Your task to perform on an android device: install app "Facebook Messenger" Image 0: 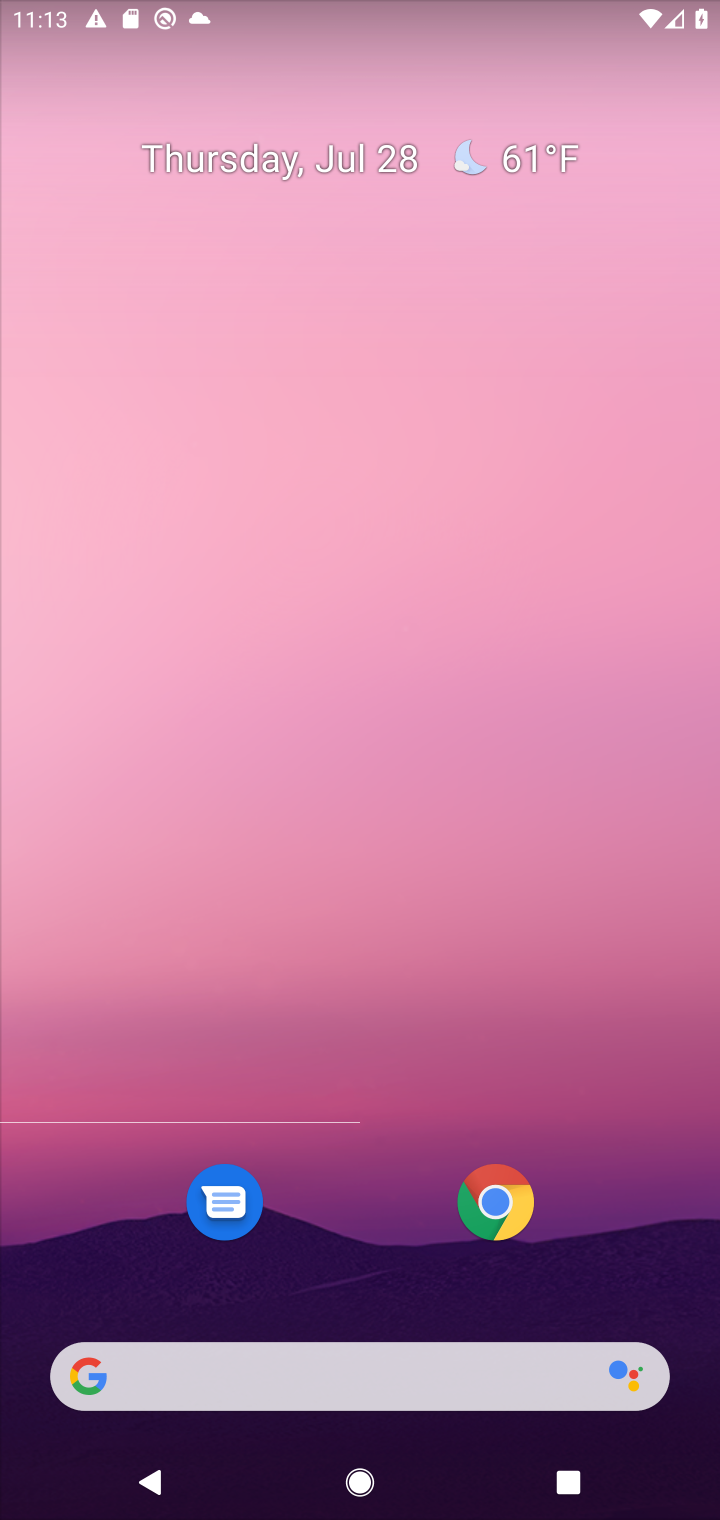
Step 0: click (567, 1001)
Your task to perform on an android device: install app "Facebook Messenger" Image 1: 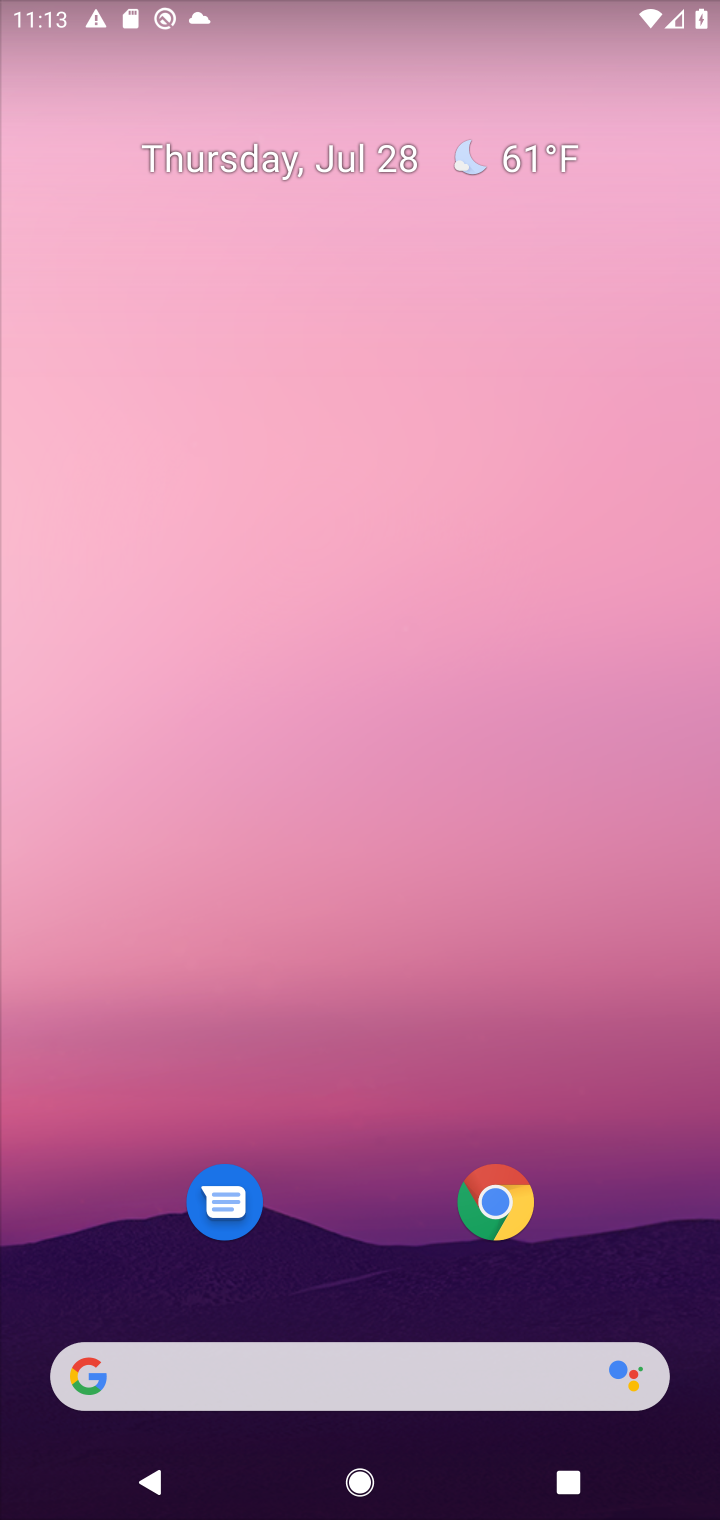
Step 1: click (286, 1389)
Your task to perform on an android device: install app "Facebook Messenger" Image 2: 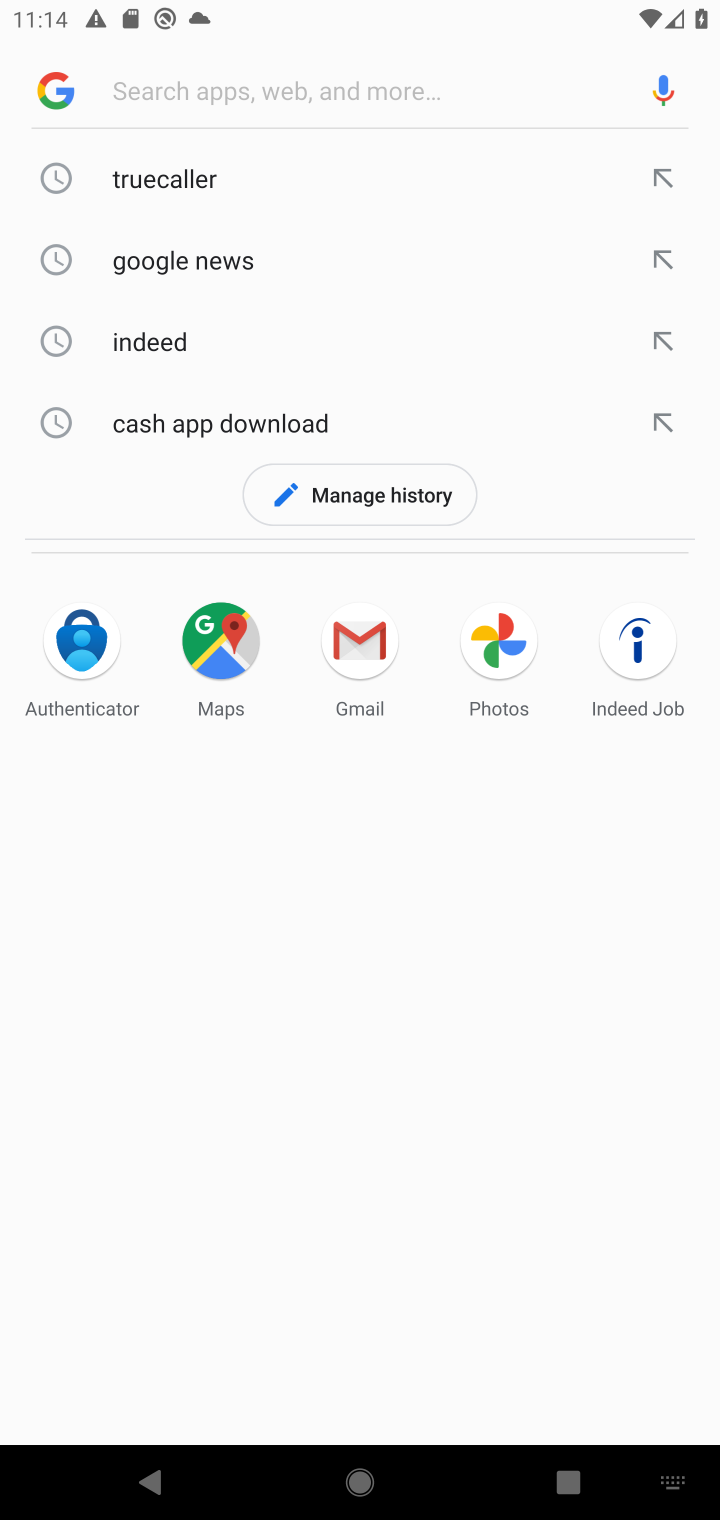
Step 2: type "facebook messanger"
Your task to perform on an android device: install app "Facebook Messenger" Image 3: 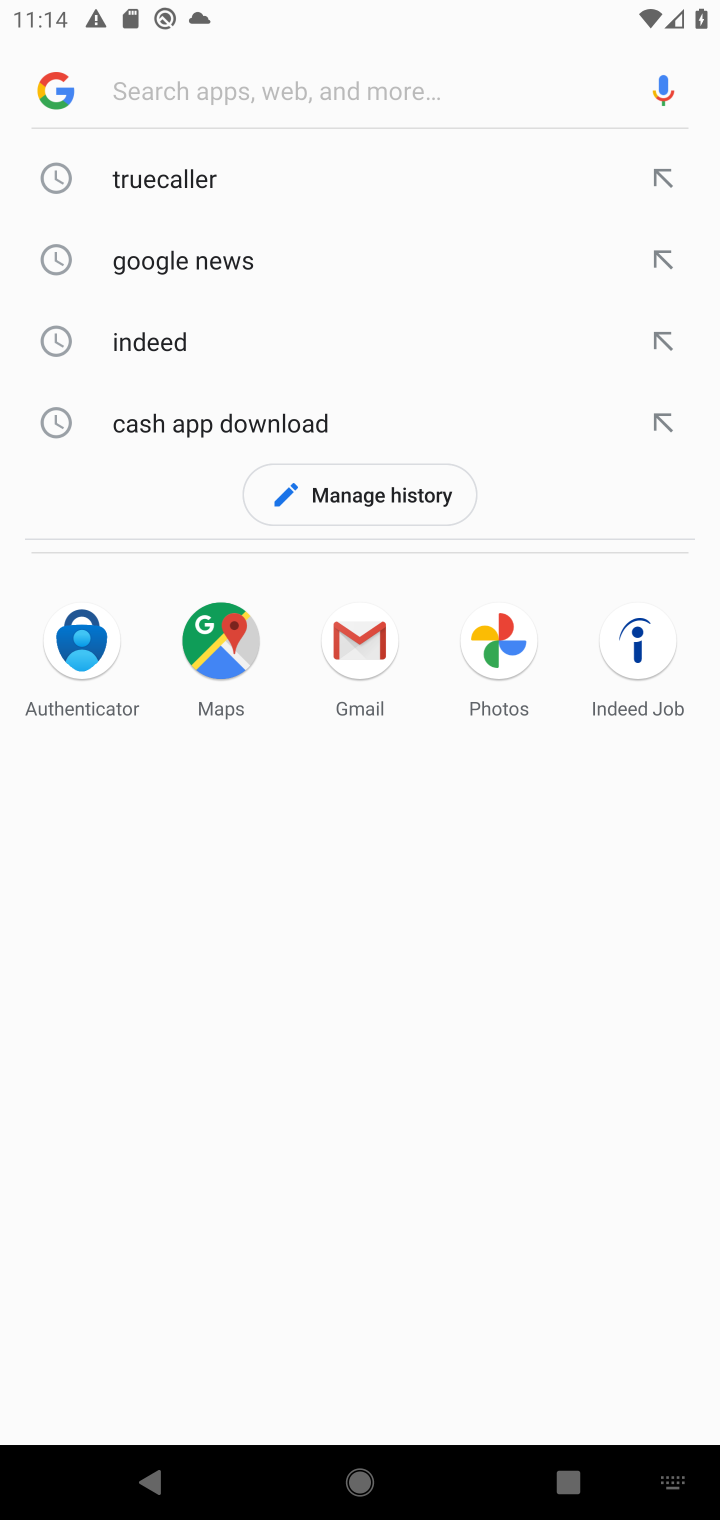
Step 3: click (352, 91)
Your task to perform on an android device: install app "Facebook Messenger" Image 4: 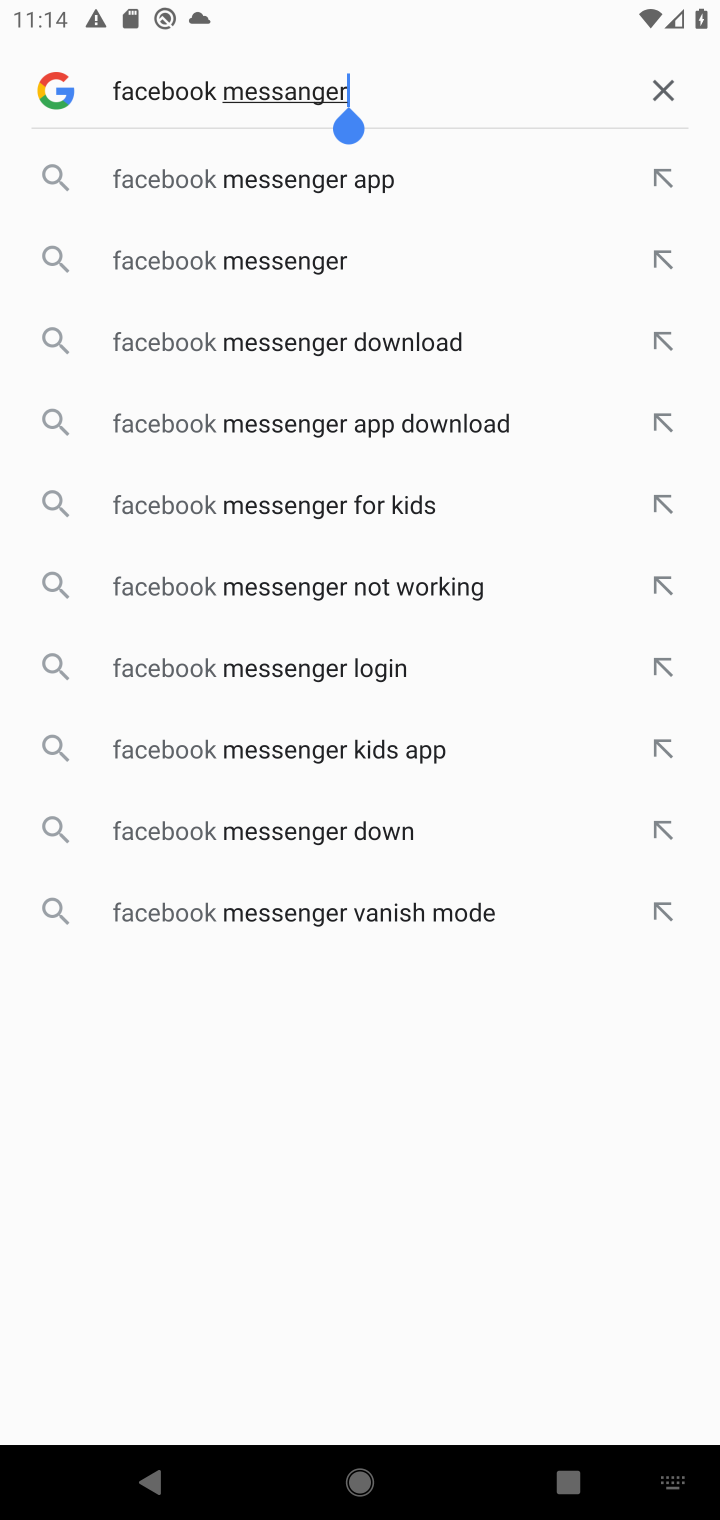
Step 4: click (352, 193)
Your task to perform on an android device: install app "Facebook Messenger" Image 5: 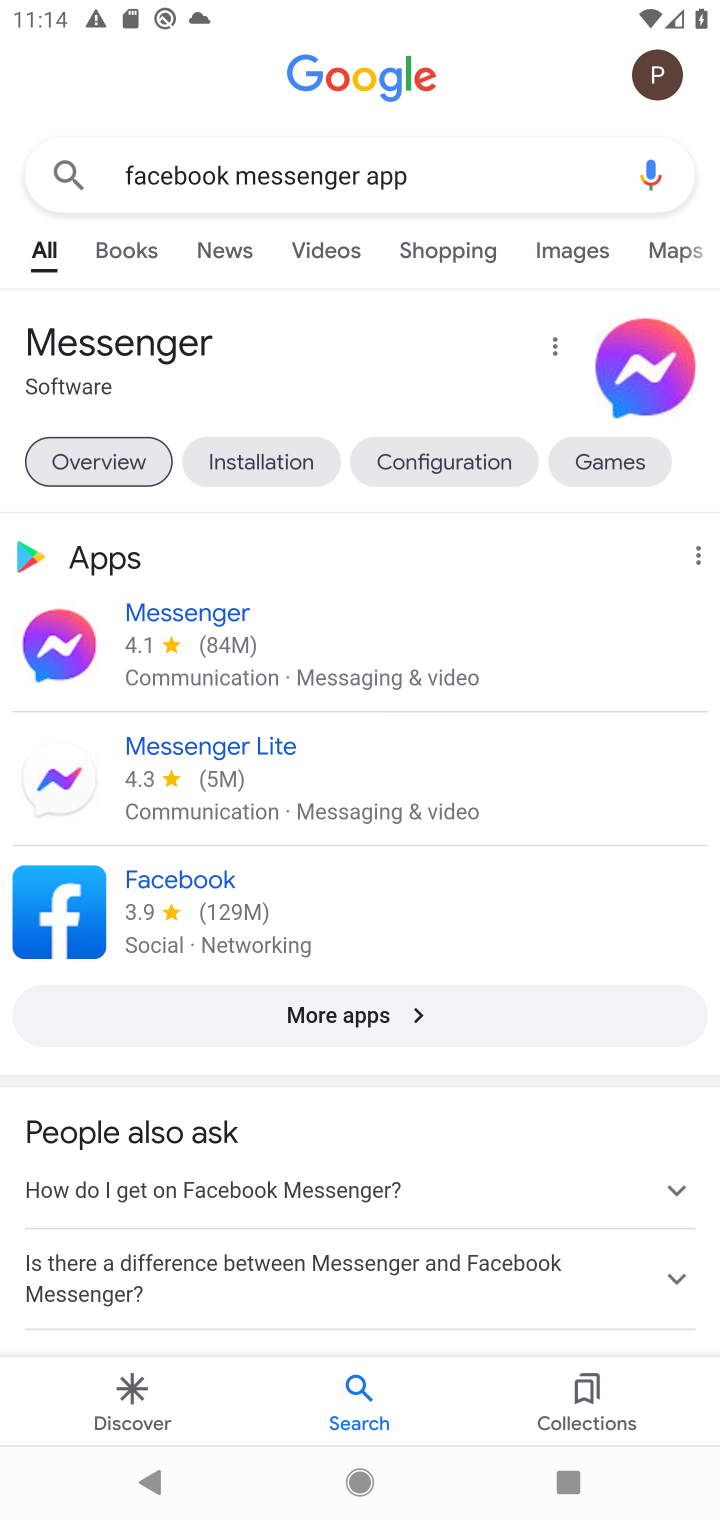
Step 5: click (344, 927)
Your task to perform on an android device: install app "Facebook Messenger" Image 6: 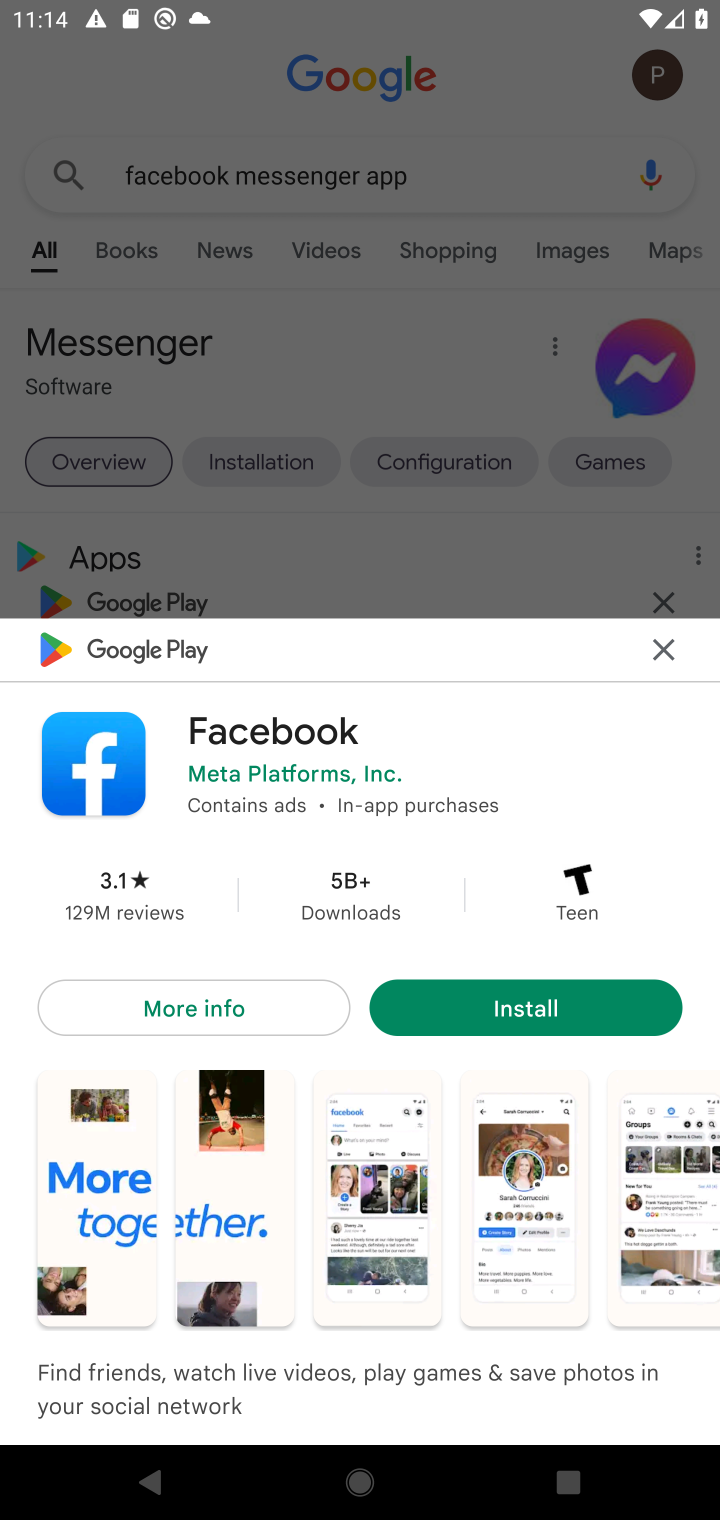
Step 6: click (459, 1005)
Your task to perform on an android device: install app "Facebook Messenger" Image 7: 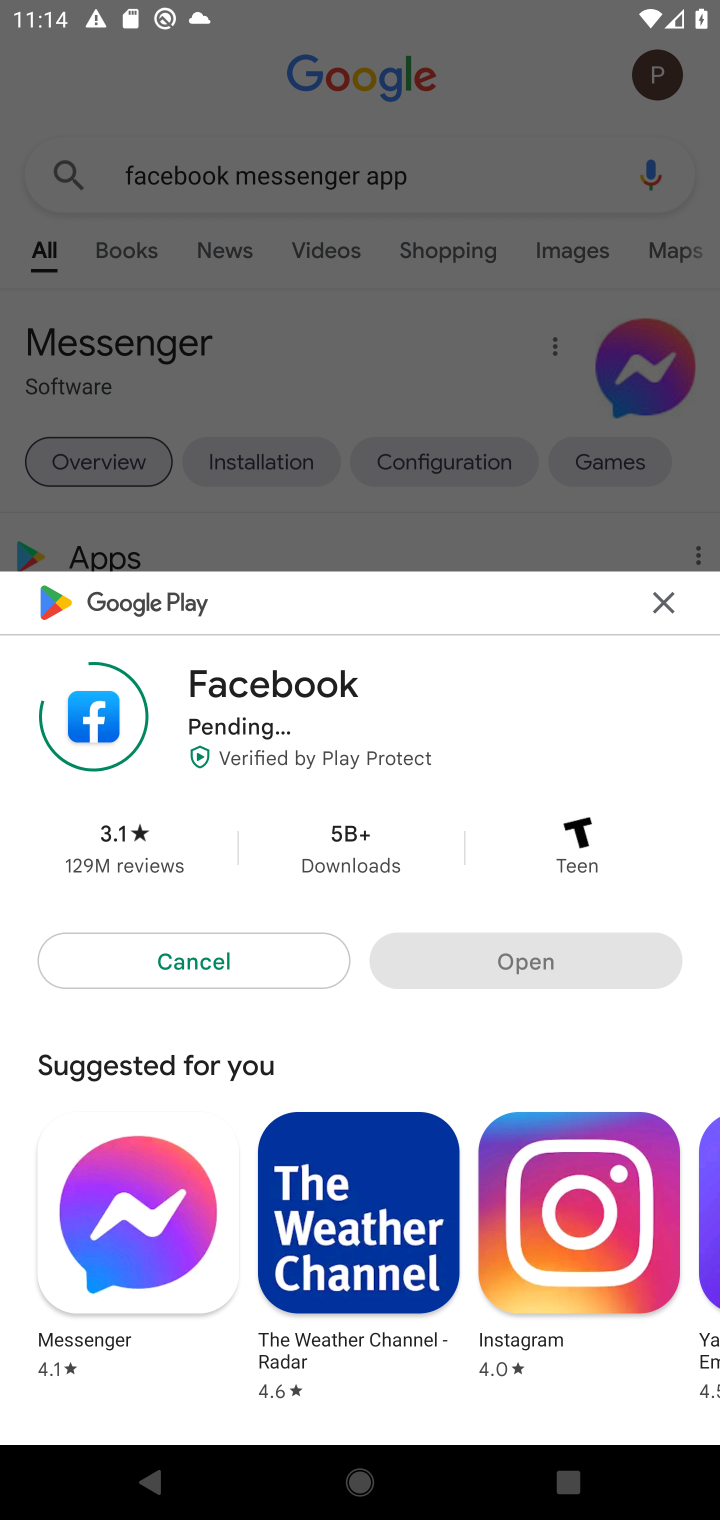
Step 7: task complete